Your task to perform on an android device: Open Android settings Image 0: 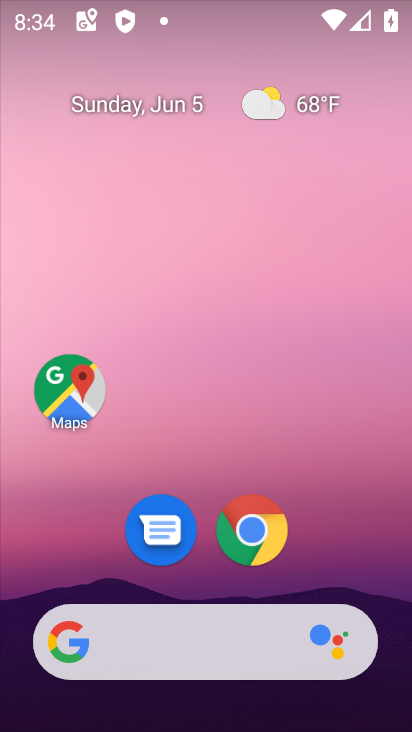
Step 0: drag from (397, 609) to (359, 68)
Your task to perform on an android device: Open Android settings Image 1: 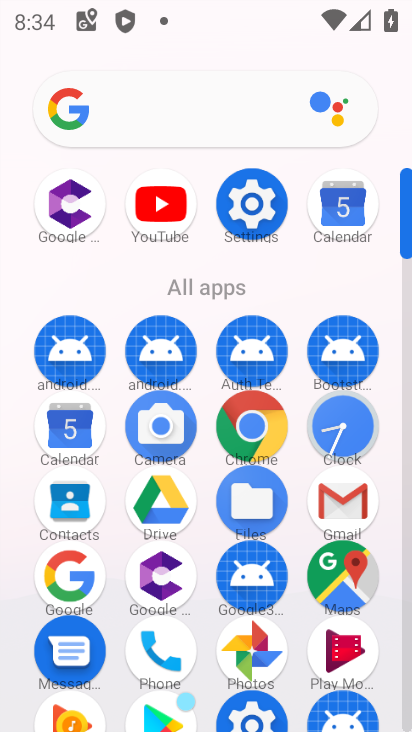
Step 1: click (405, 693)
Your task to perform on an android device: Open Android settings Image 2: 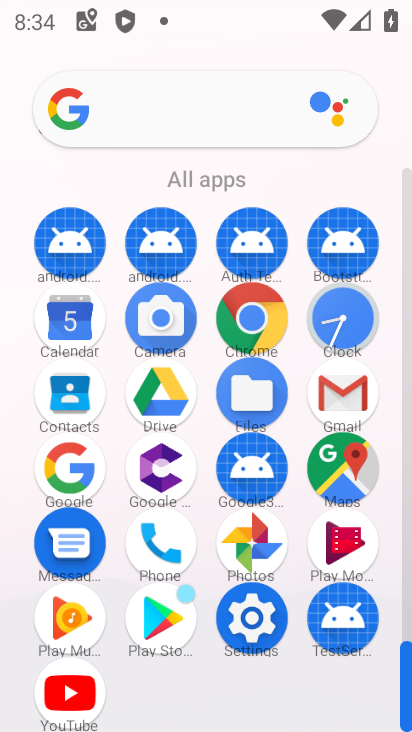
Step 2: click (254, 620)
Your task to perform on an android device: Open Android settings Image 3: 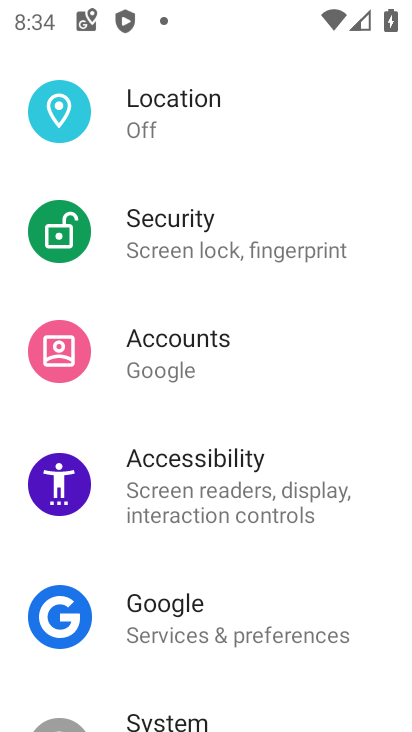
Step 3: drag from (306, 670) to (326, 109)
Your task to perform on an android device: Open Android settings Image 4: 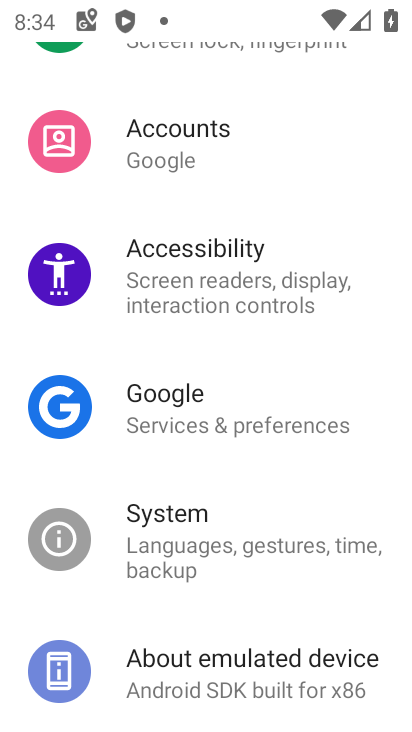
Step 4: click (171, 662)
Your task to perform on an android device: Open Android settings Image 5: 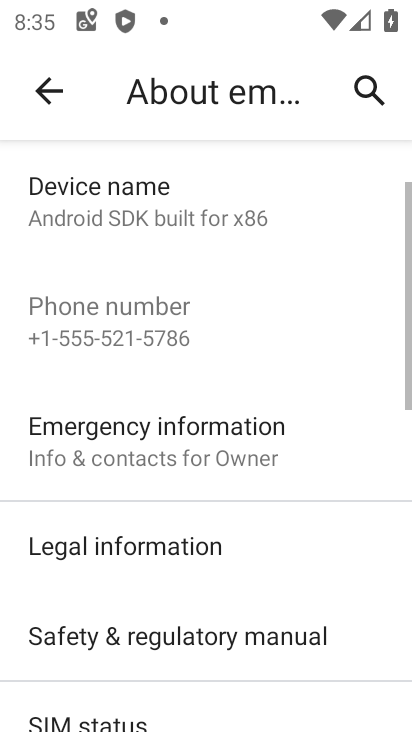
Step 5: task complete